Your task to perform on an android device: see tabs open on other devices in the chrome app Image 0: 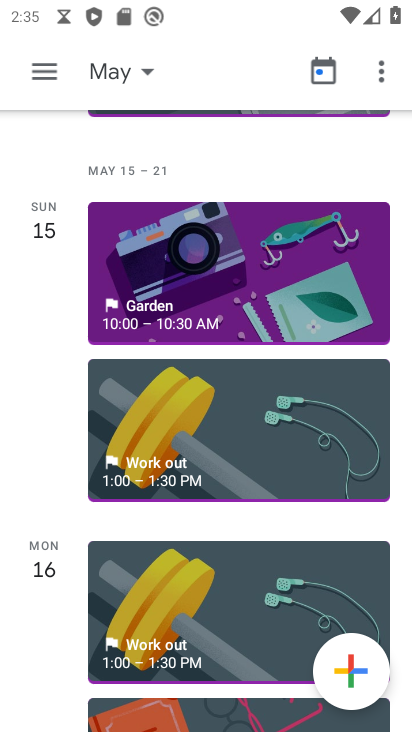
Step 0: press home button
Your task to perform on an android device: see tabs open on other devices in the chrome app Image 1: 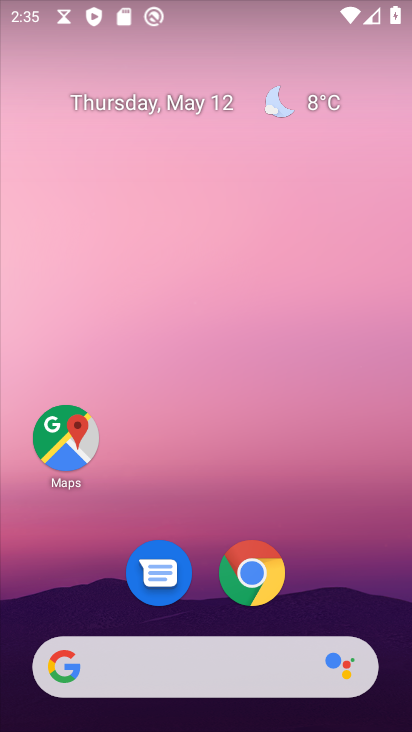
Step 1: click (243, 569)
Your task to perform on an android device: see tabs open on other devices in the chrome app Image 2: 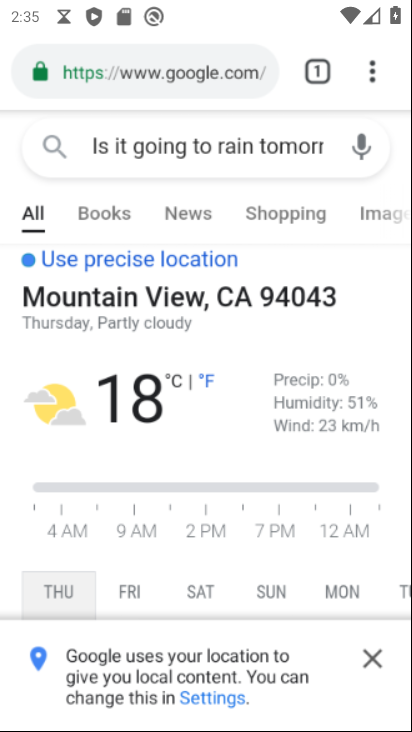
Step 2: drag from (371, 58) to (109, 350)
Your task to perform on an android device: see tabs open on other devices in the chrome app Image 3: 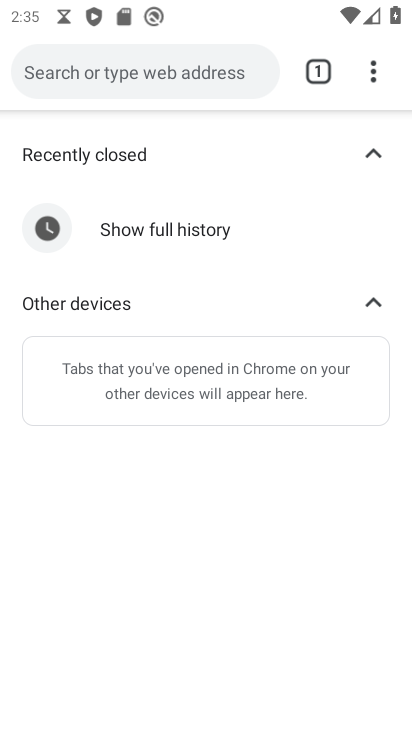
Step 3: click (101, 298)
Your task to perform on an android device: see tabs open on other devices in the chrome app Image 4: 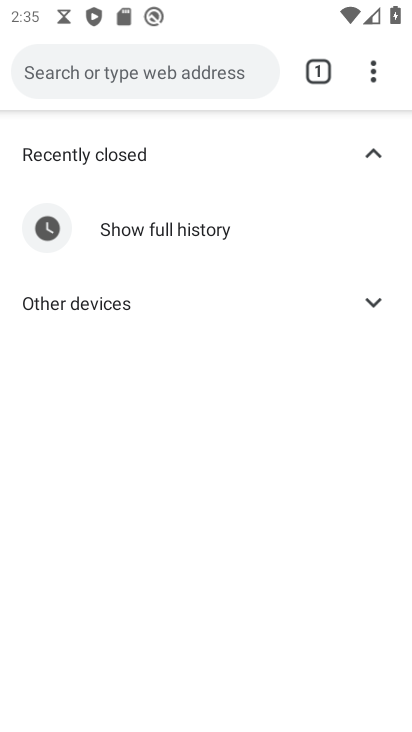
Step 4: task complete